Your task to perform on an android device: turn on data saver in the chrome app Image 0: 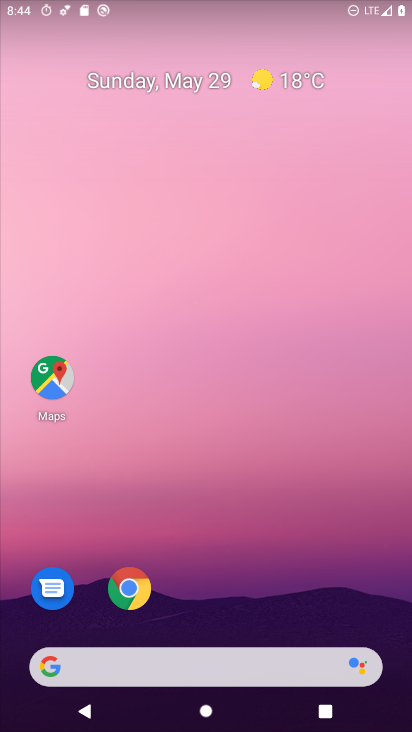
Step 0: click (133, 589)
Your task to perform on an android device: turn on data saver in the chrome app Image 1: 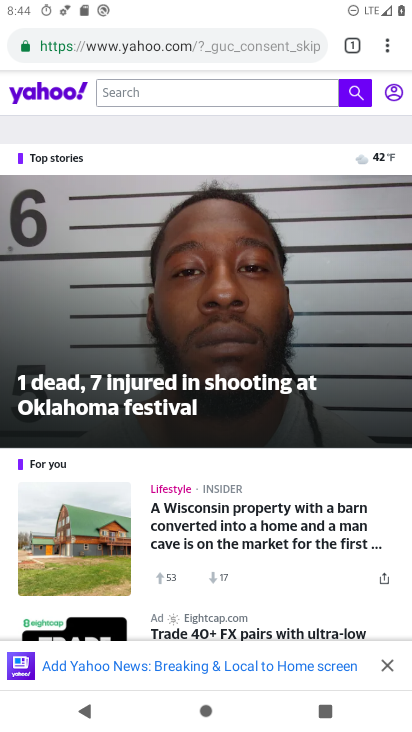
Step 1: click (380, 39)
Your task to perform on an android device: turn on data saver in the chrome app Image 2: 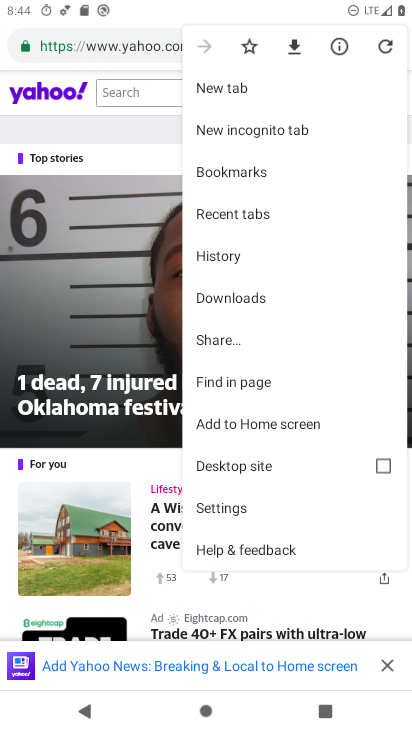
Step 2: click (241, 518)
Your task to perform on an android device: turn on data saver in the chrome app Image 3: 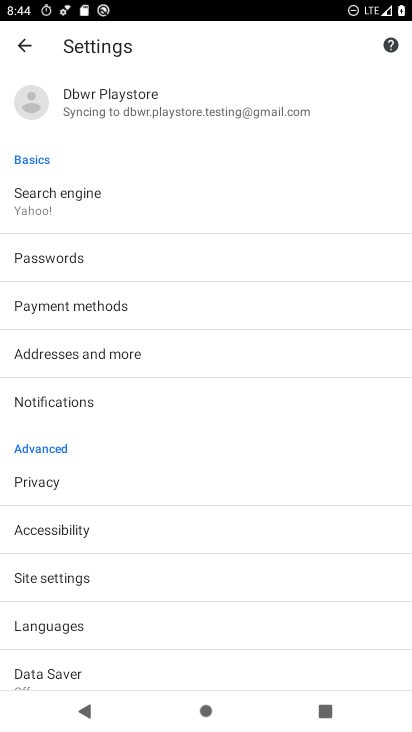
Step 3: click (53, 668)
Your task to perform on an android device: turn on data saver in the chrome app Image 4: 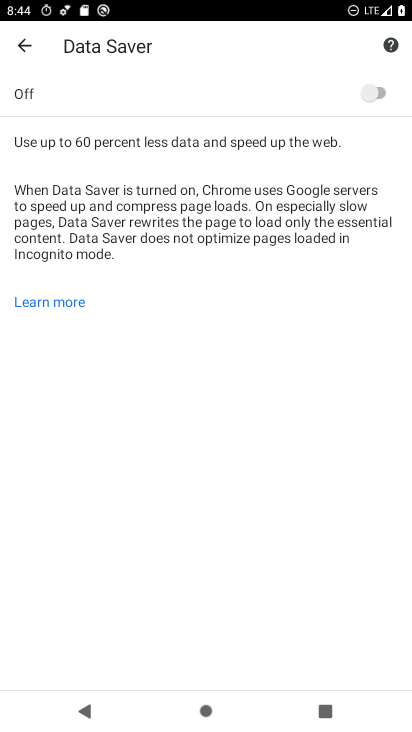
Step 4: click (373, 94)
Your task to perform on an android device: turn on data saver in the chrome app Image 5: 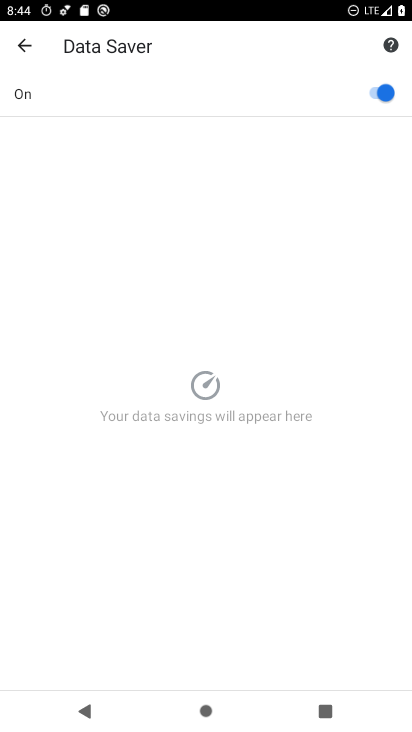
Step 5: task complete